Your task to perform on an android device: turn pop-ups on in chrome Image 0: 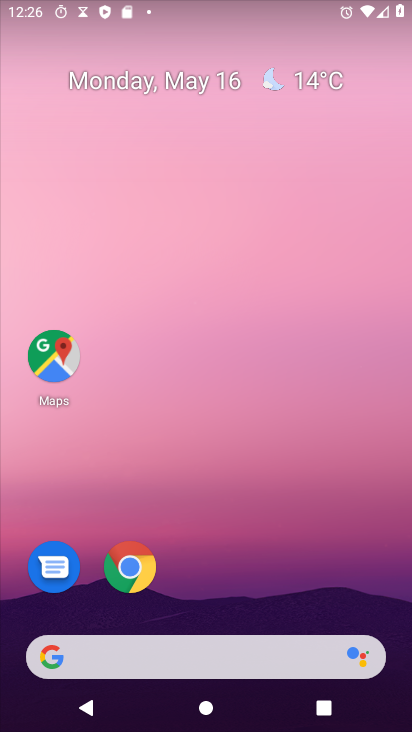
Step 0: click (139, 567)
Your task to perform on an android device: turn pop-ups on in chrome Image 1: 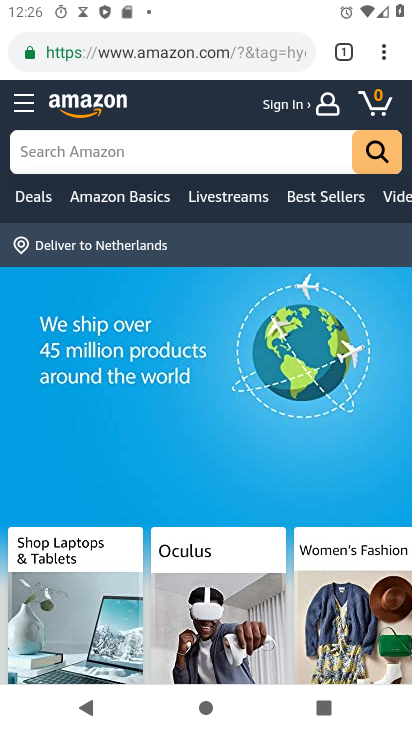
Step 1: click (378, 51)
Your task to perform on an android device: turn pop-ups on in chrome Image 2: 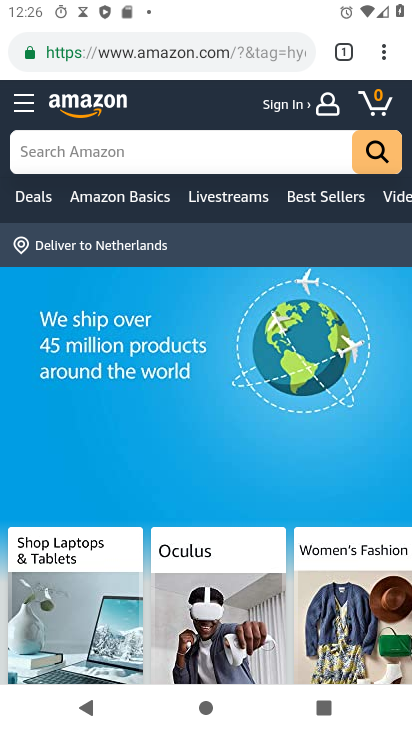
Step 2: click (382, 51)
Your task to perform on an android device: turn pop-ups on in chrome Image 3: 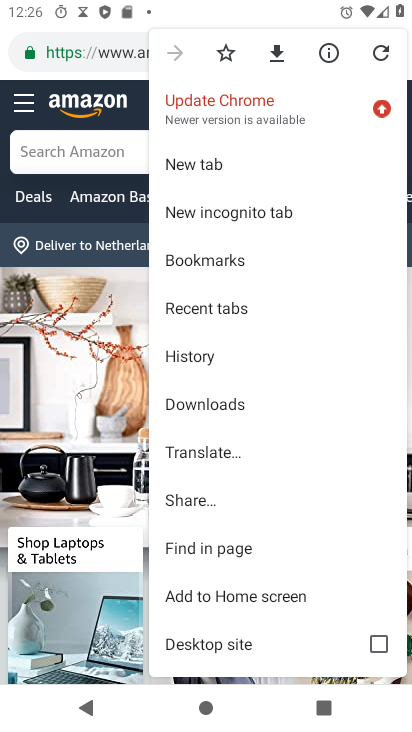
Step 3: drag from (226, 640) to (264, 304)
Your task to perform on an android device: turn pop-ups on in chrome Image 4: 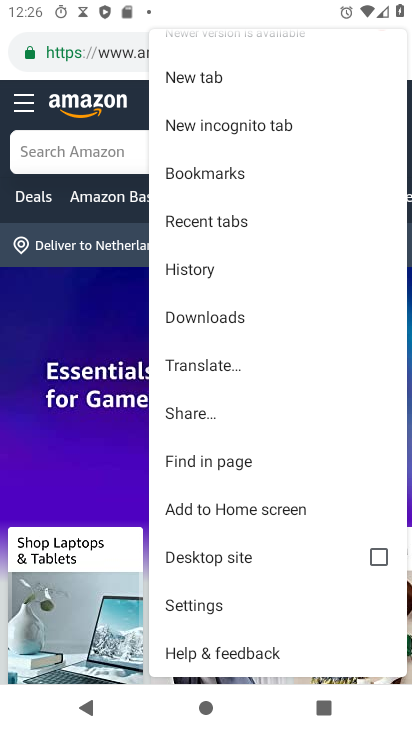
Step 4: click (233, 609)
Your task to perform on an android device: turn pop-ups on in chrome Image 5: 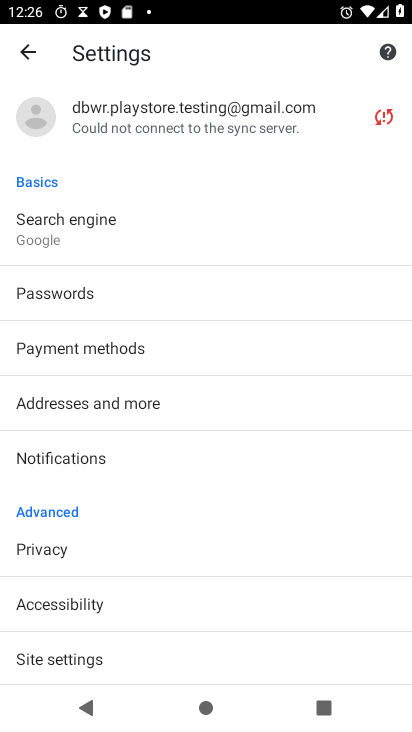
Step 5: click (147, 653)
Your task to perform on an android device: turn pop-ups on in chrome Image 6: 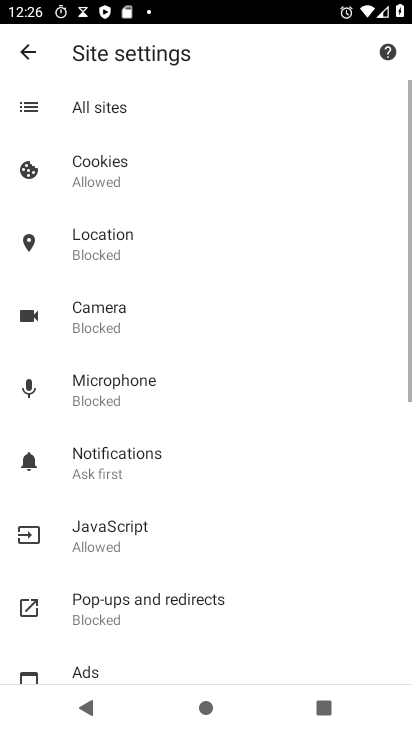
Step 6: drag from (170, 641) to (182, 463)
Your task to perform on an android device: turn pop-ups on in chrome Image 7: 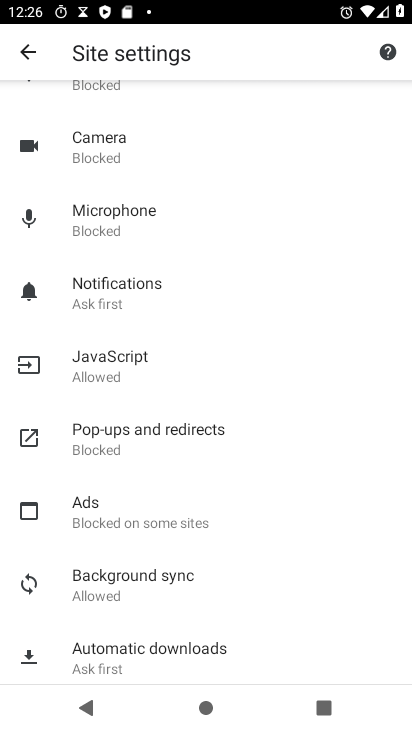
Step 7: click (160, 430)
Your task to perform on an android device: turn pop-ups on in chrome Image 8: 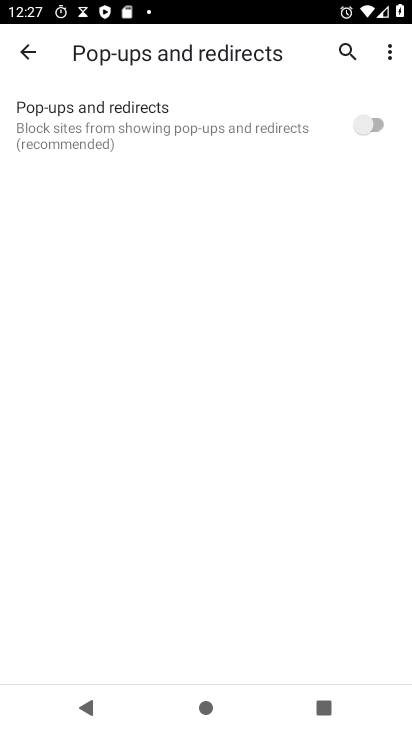
Step 8: click (356, 130)
Your task to perform on an android device: turn pop-ups on in chrome Image 9: 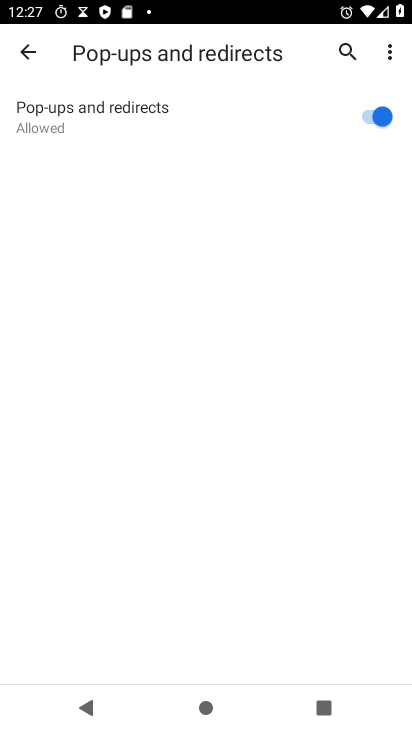
Step 9: task complete